Your task to perform on an android device: When is my next meeting? Image 0: 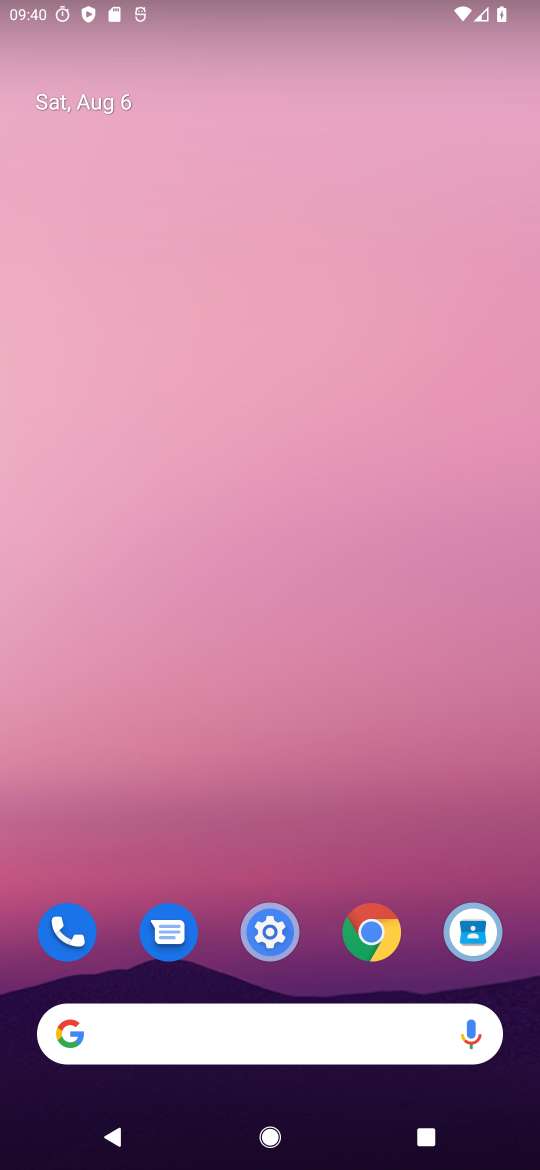
Step 0: click (190, 1024)
Your task to perform on an android device: When is my next meeting? Image 1: 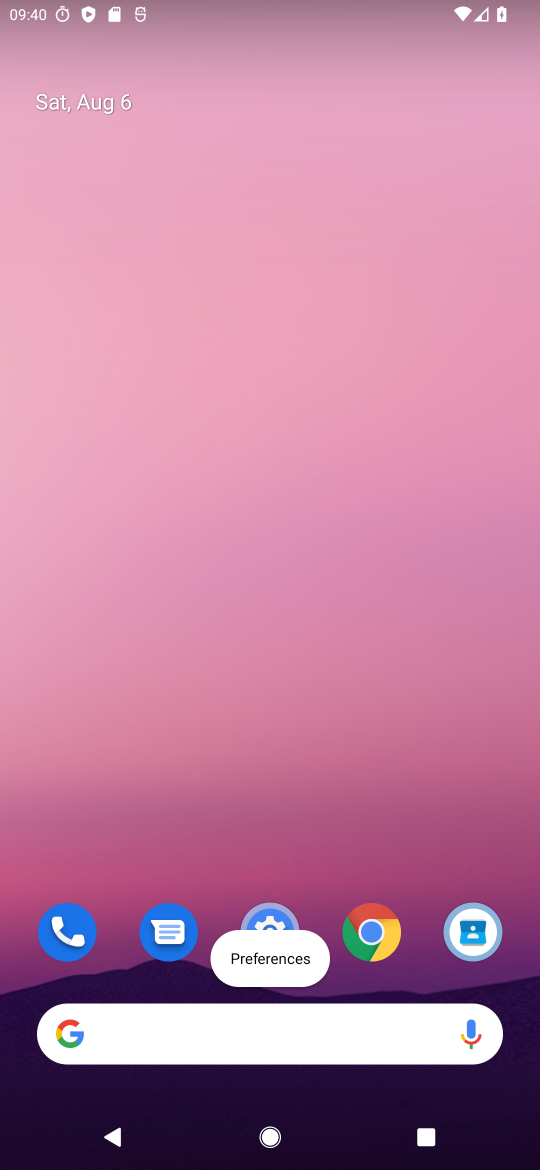
Step 1: click (130, 1034)
Your task to perform on an android device: When is my next meeting? Image 2: 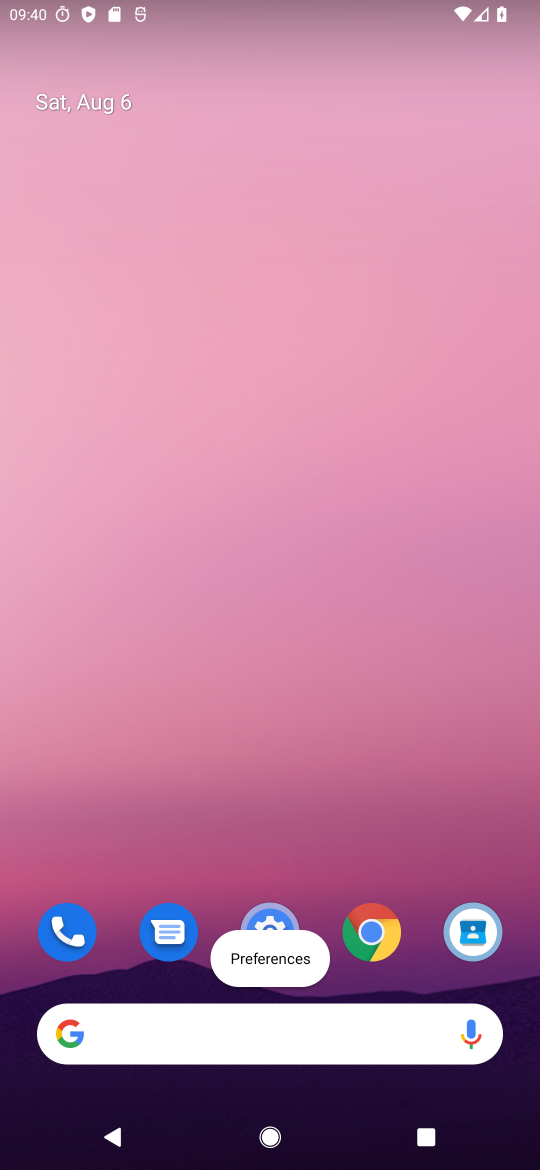
Step 2: drag from (218, 1000) to (323, 387)
Your task to perform on an android device: When is my next meeting? Image 3: 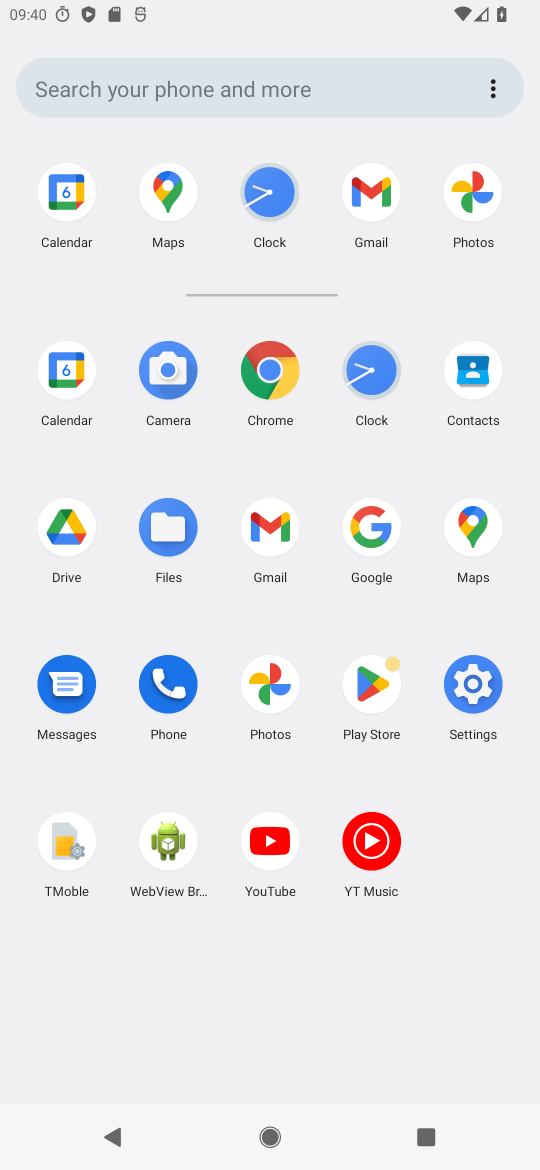
Step 3: click (70, 189)
Your task to perform on an android device: When is my next meeting? Image 4: 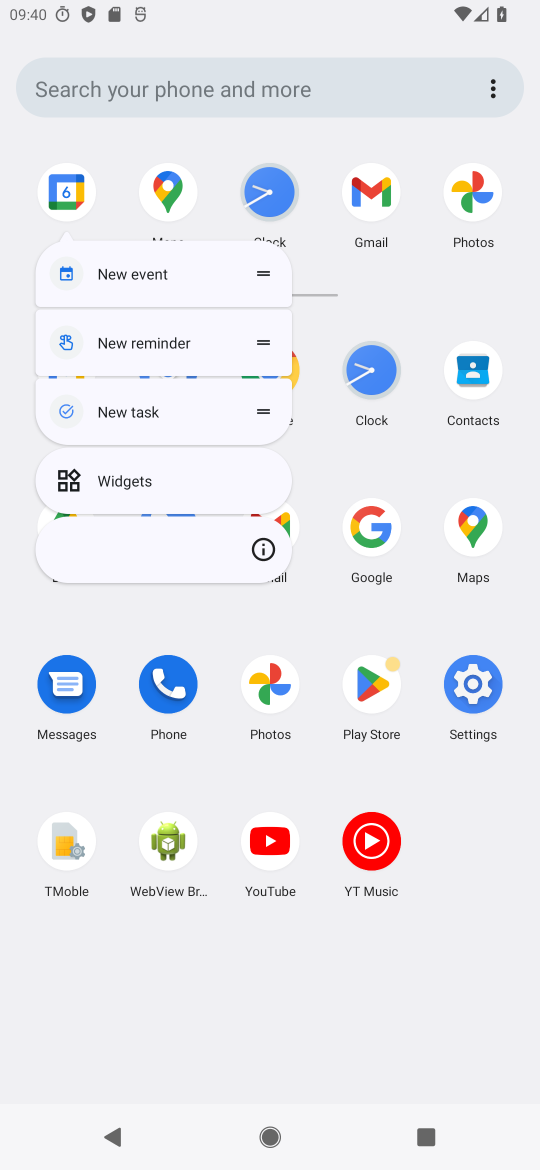
Step 4: click (70, 195)
Your task to perform on an android device: When is my next meeting? Image 5: 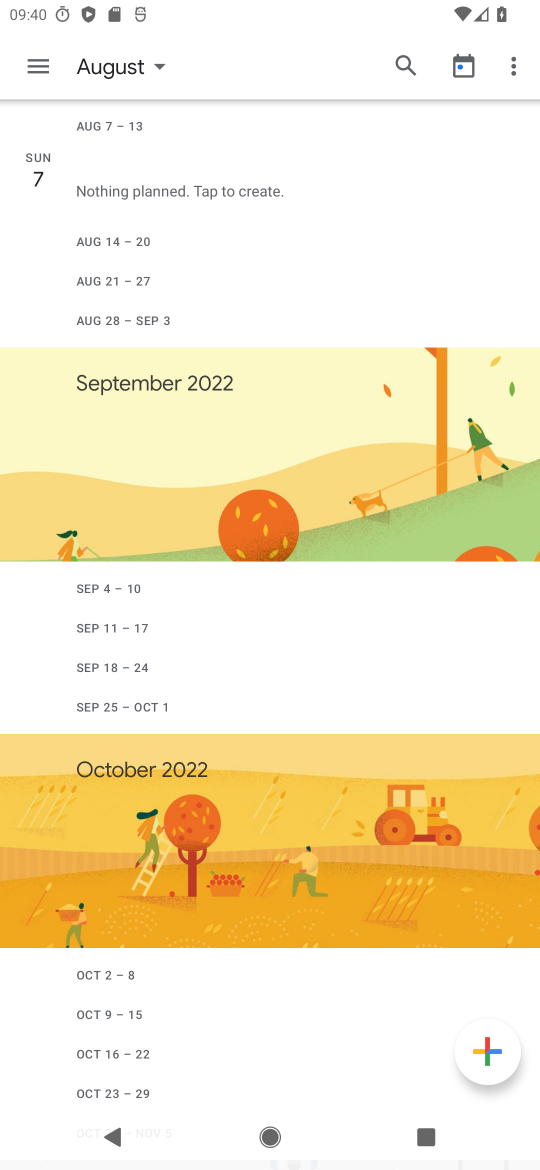
Step 5: click (348, 1002)
Your task to perform on an android device: When is my next meeting? Image 6: 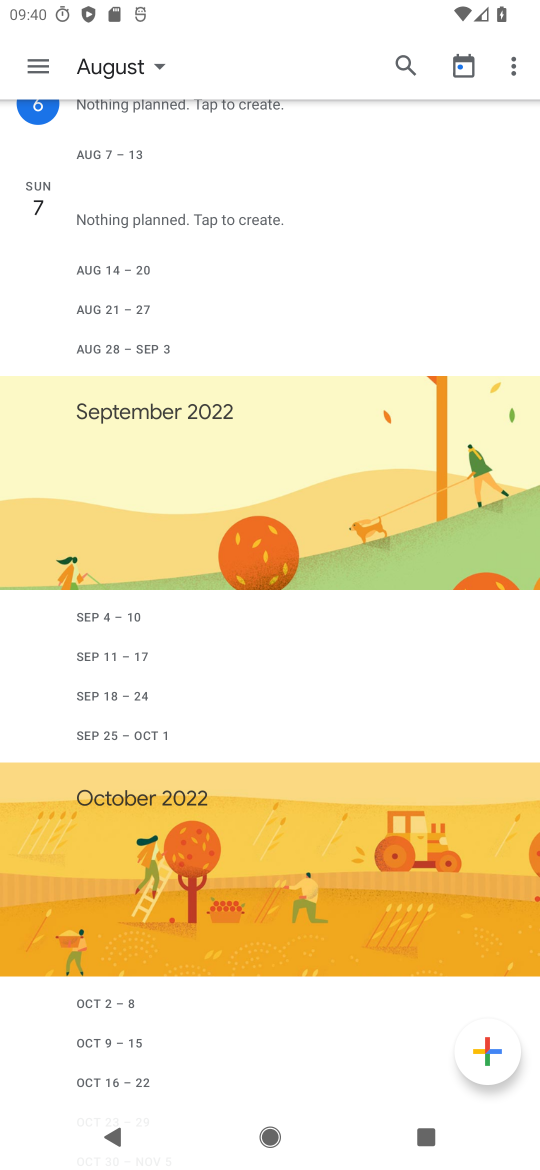
Step 6: task complete